Your task to perform on an android device: What's the latest video from Game Informer? Image 0: 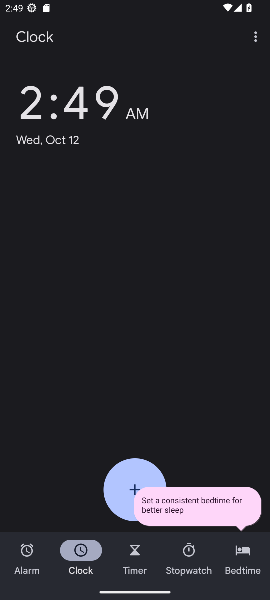
Step 0: press home button
Your task to perform on an android device: What's the latest video from Game Informer? Image 1: 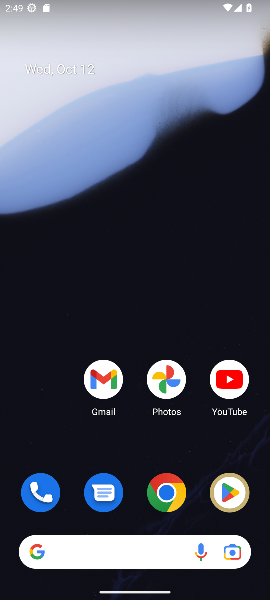
Step 1: click (235, 385)
Your task to perform on an android device: What's the latest video from Game Informer? Image 2: 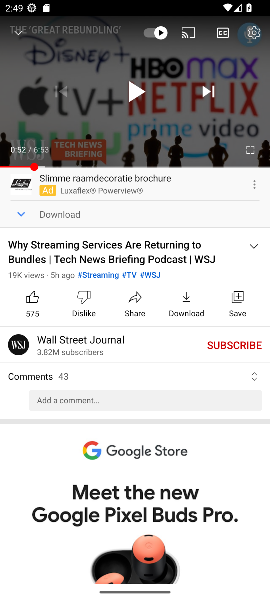
Step 2: click (17, 40)
Your task to perform on an android device: What's the latest video from Game Informer? Image 3: 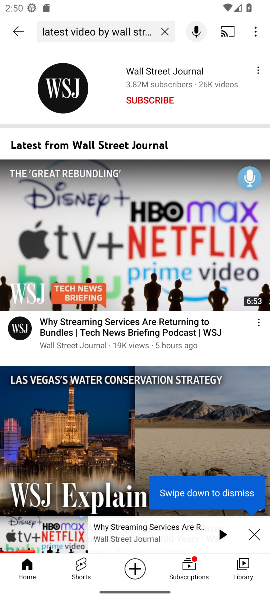
Step 3: click (167, 33)
Your task to perform on an android device: What's the latest video from Game Informer? Image 4: 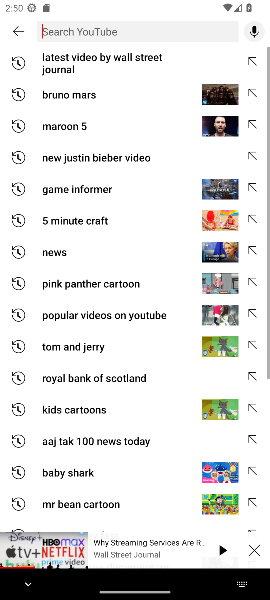
Step 4: click (123, 35)
Your task to perform on an android device: What's the latest video from Game Informer? Image 5: 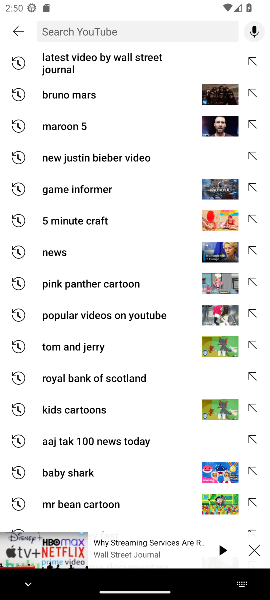
Step 5: type "the latest video from Game Informer"
Your task to perform on an android device: What's the latest video from Game Informer? Image 6: 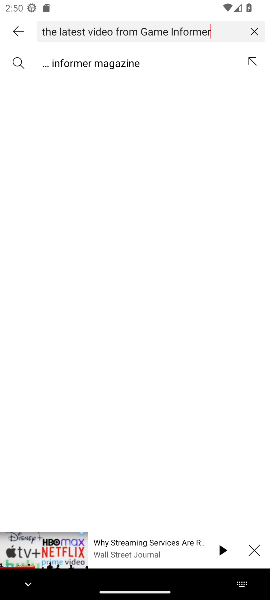
Step 6: click (95, 65)
Your task to perform on an android device: What's the latest video from Game Informer? Image 7: 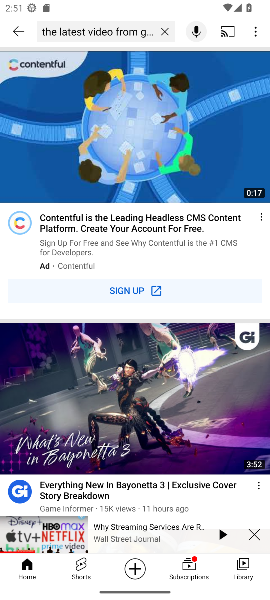
Step 7: drag from (136, 331) to (154, 129)
Your task to perform on an android device: What's the latest video from Game Informer? Image 8: 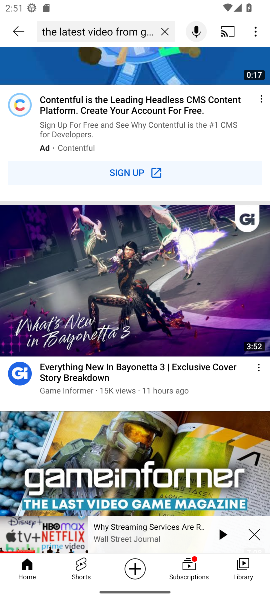
Step 8: click (119, 289)
Your task to perform on an android device: What's the latest video from Game Informer? Image 9: 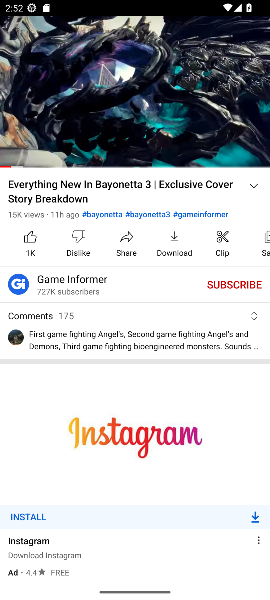
Step 9: click (176, 119)
Your task to perform on an android device: What's the latest video from Game Informer? Image 10: 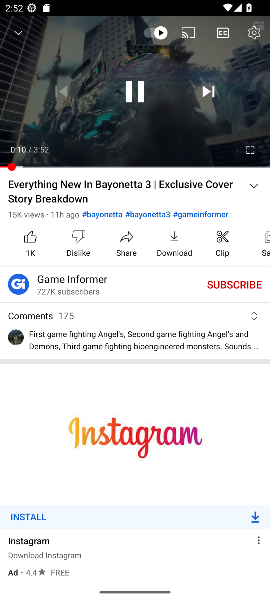
Step 10: click (134, 95)
Your task to perform on an android device: What's the latest video from Game Informer? Image 11: 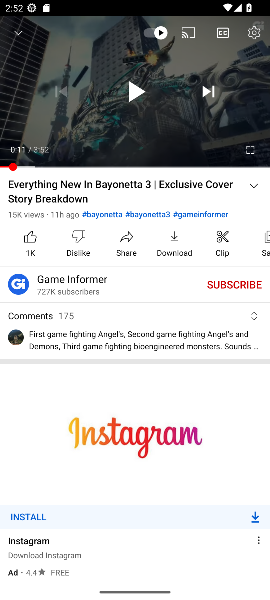
Step 11: task complete